Your task to perform on an android device: delete the emails in spam in the gmail app Image 0: 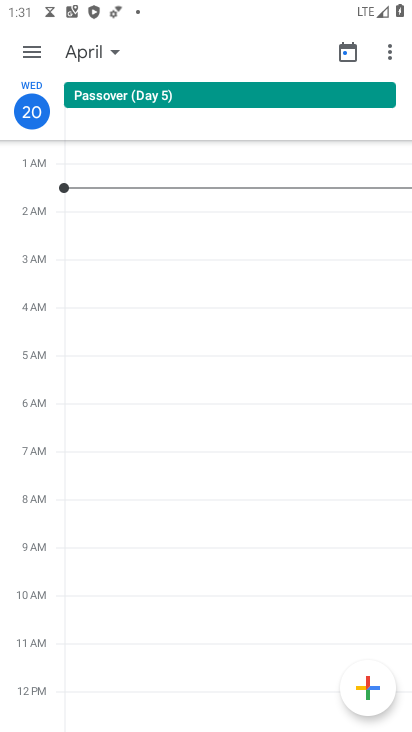
Step 0: press home button
Your task to perform on an android device: delete the emails in spam in the gmail app Image 1: 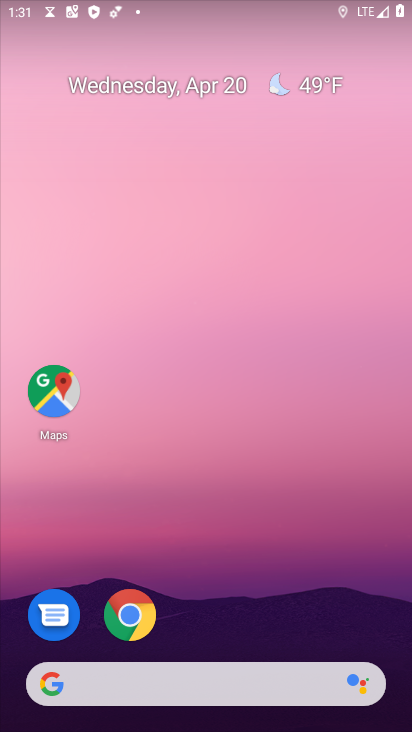
Step 1: drag from (93, 730) to (234, 212)
Your task to perform on an android device: delete the emails in spam in the gmail app Image 2: 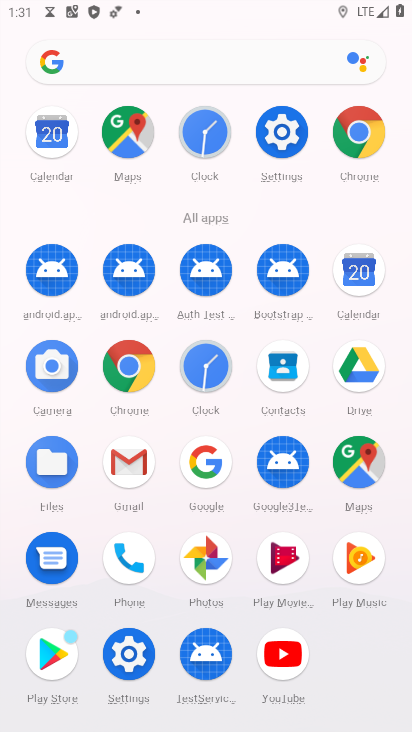
Step 2: click (140, 482)
Your task to perform on an android device: delete the emails in spam in the gmail app Image 3: 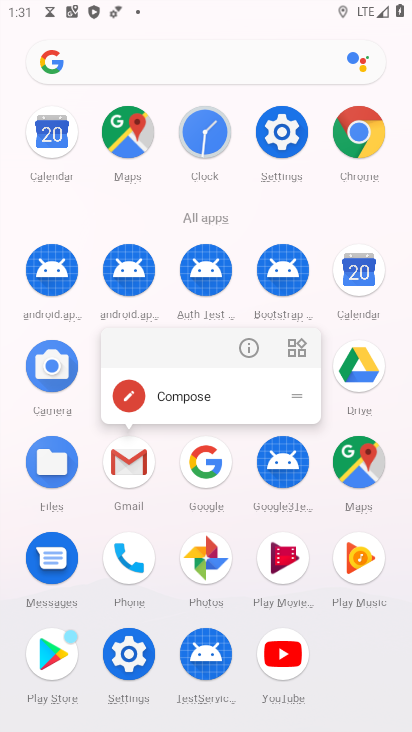
Step 3: click (115, 462)
Your task to perform on an android device: delete the emails in spam in the gmail app Image 4: 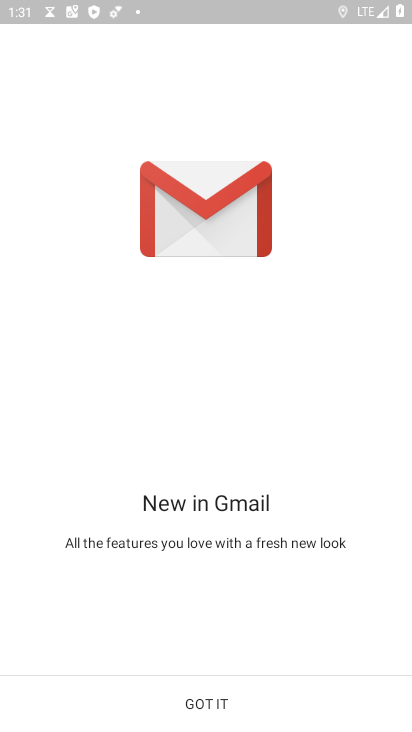
Step 4: click (214, 691)
Your task to perform on an android device: delete the emails in spam in the gmail app Image 5: 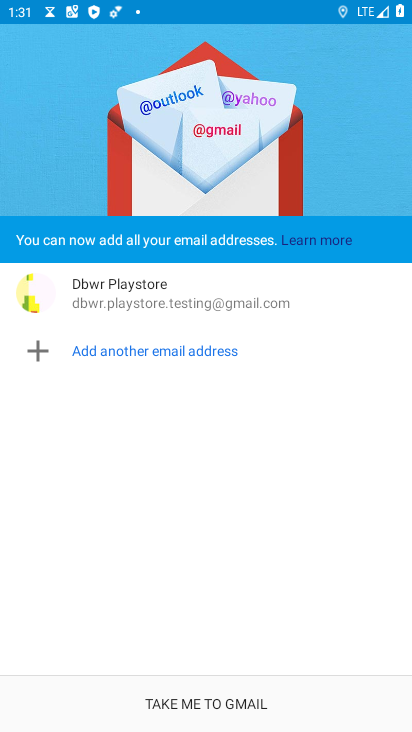
Step 5: click (210, 705)
Your task to perform on an android device: delete the emails in spam in the gmail app Image 6: 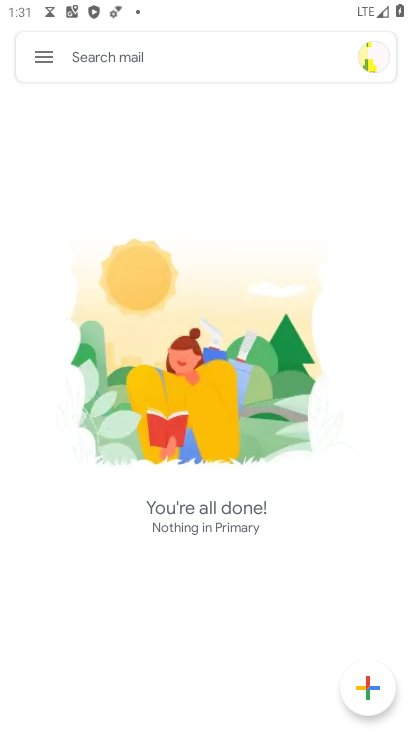
Step 6: click (48, 61)
Your task to perform on an android device: delete the emails in spam in the gmail app Image 7: 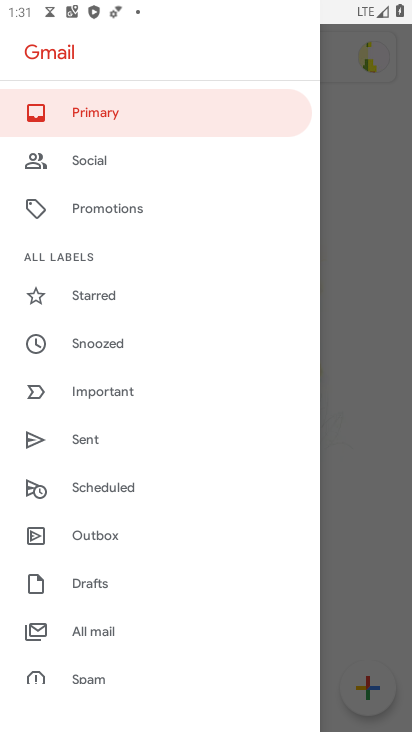
Step 7: drag from (204, 623) to (280, 305)
Your task to perform on an android device: delete the emails in spam in the gmail app Image 8: 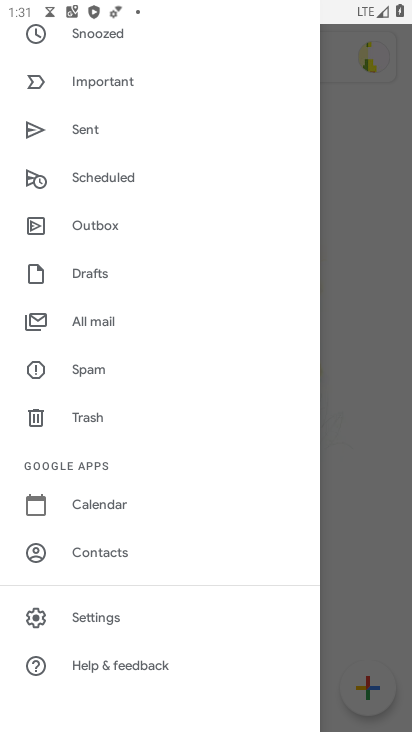
Step 8: click (85, 370)
Your task to perform on an android device: delete the emails in spam in the gmail app Image 9: 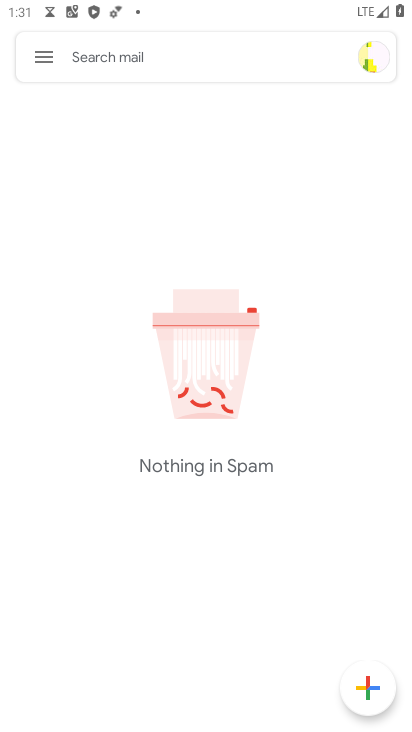
Step 9: task complete